Your task to perform on an android device: Do I have any events this weekend? Image 0: 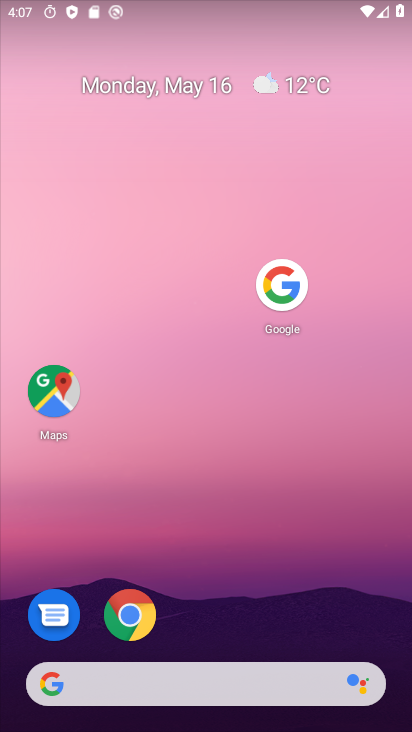
Step 0: click (192, 692)
Your task to perform on an android device: Do I have any events this weekend? Image 1: 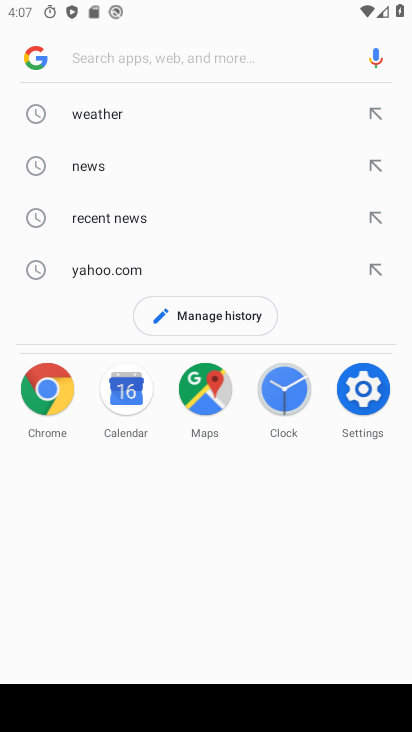
Step 1: click (86, 103)
Your task to perform on an android device: Do I have any events this weekend? Image 2: 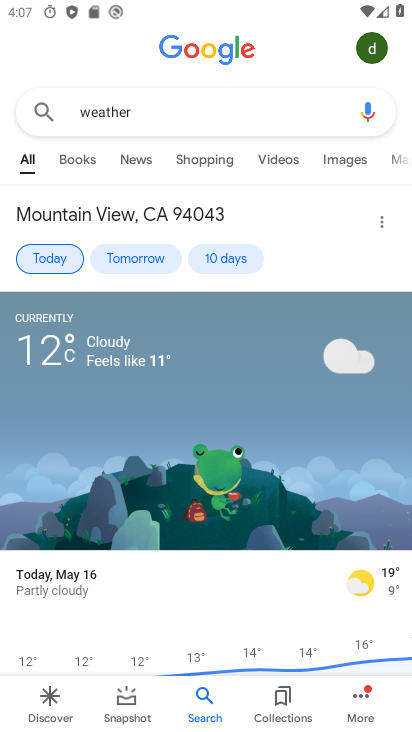
Step 2: click (213, 254)
Your task to perform on an android device: Do I have any events this weekend? Image 3: 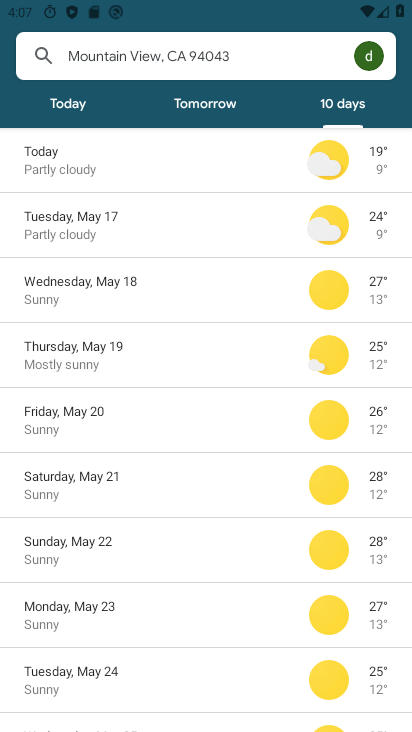
Step 3: task complete